Your task to perform on an android device: change the clock style Image 0: 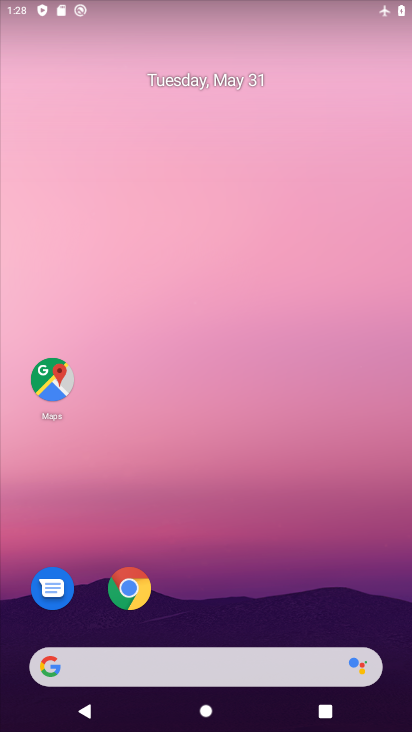
Step 0: drag from (332, 623) to (393, 216)
Your task to perform on an android device: change the clock style Image 1: 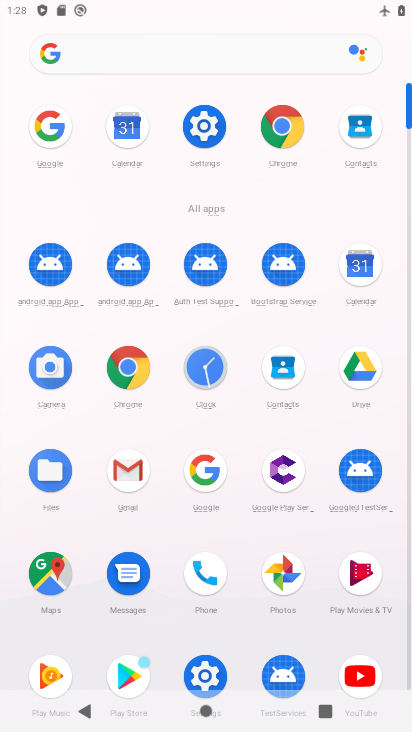
Step 1: click (210, 378)
Your task to perform on an android device: change the clock style Image 2: 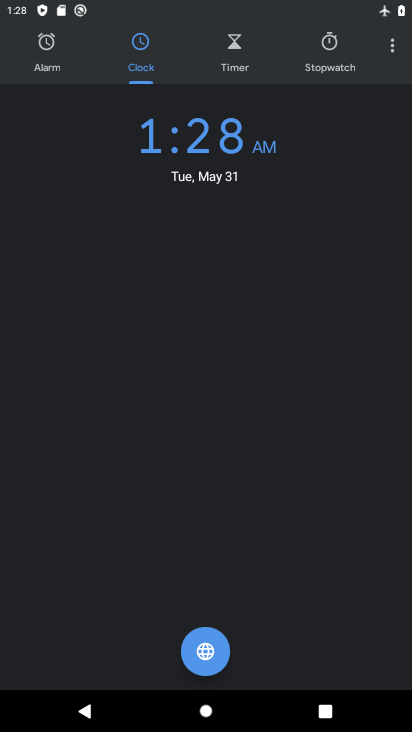
Step 2: click (395, 50)
Your task to perform on an android device: change the clock style Image 3: 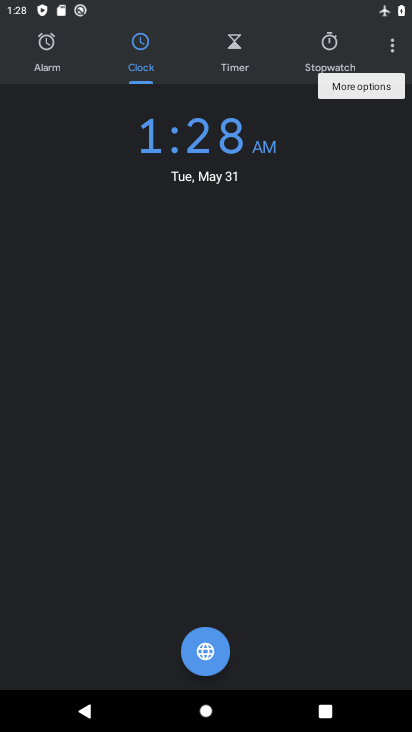
Step 3: click (395, 50)
Your task to perform on an android device: change the clock style Image 4: 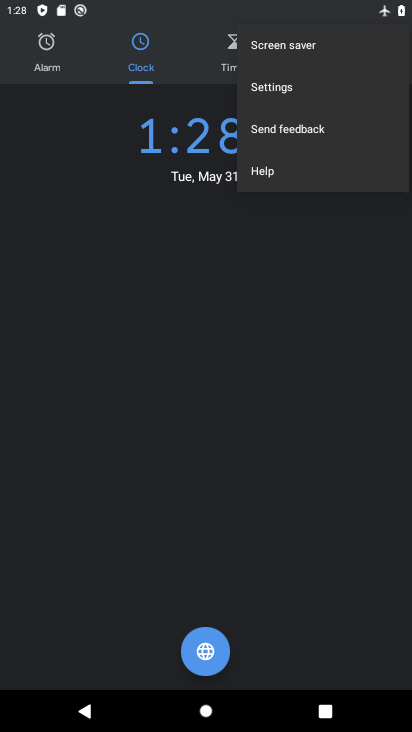
Step 4: click (307, 96)
Your task to perform on an android device: change the clock style Image 5: 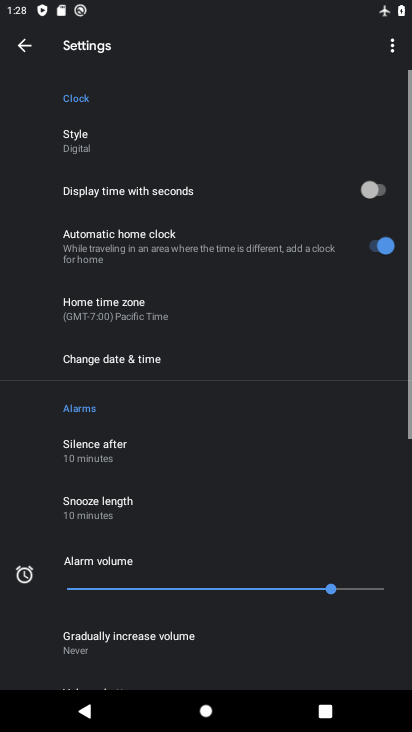
Step 5: drag from (328, 405) to (329, 302)
Your task to perform on an android device: change the clock style Image 6: 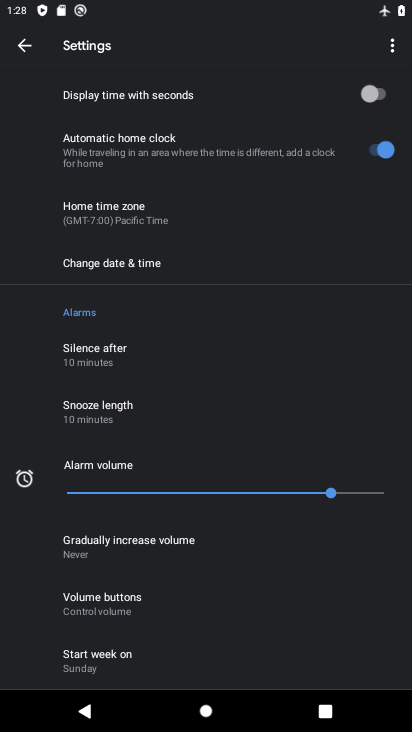
Step 6: drag from (323, 412) to (335, 297)
Your task to perform on an android device: change the clock style Image 7: 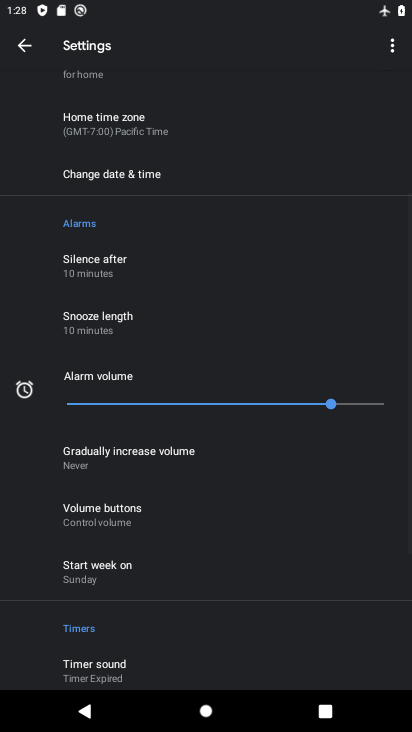
Step 7: drag from (318, 473) to (335, 325)
Your task to perform on an android device: change the clock style Image 8: 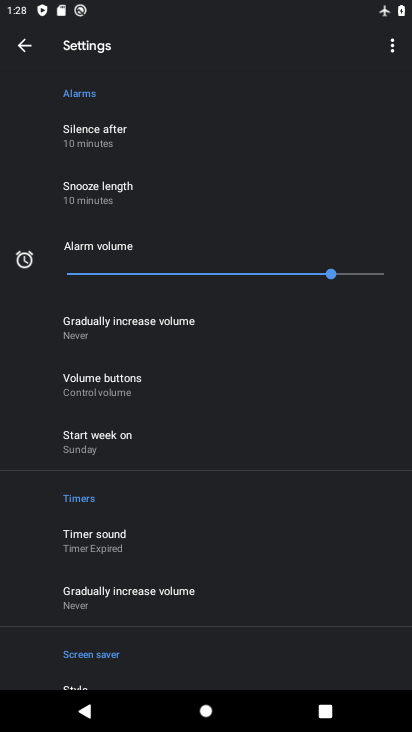
Step 8: drag from (327, 489) to (325, 384)
Your task to perform on an android device: change the clock style Image 9: 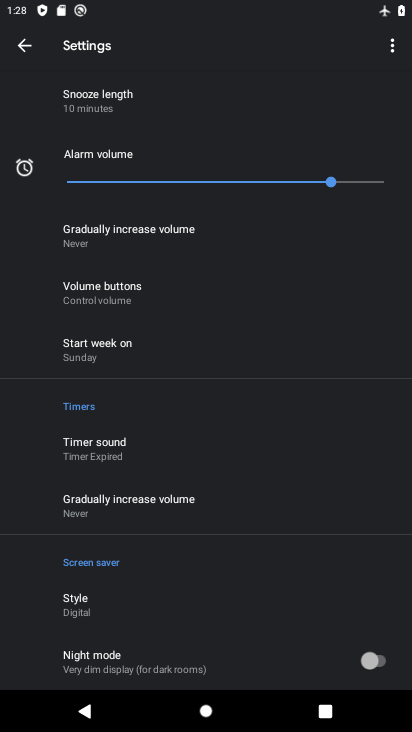
Step 9: drag from (320, 510) to (324, 370)
Your task to perform on an android device: change the clock style Image 10: 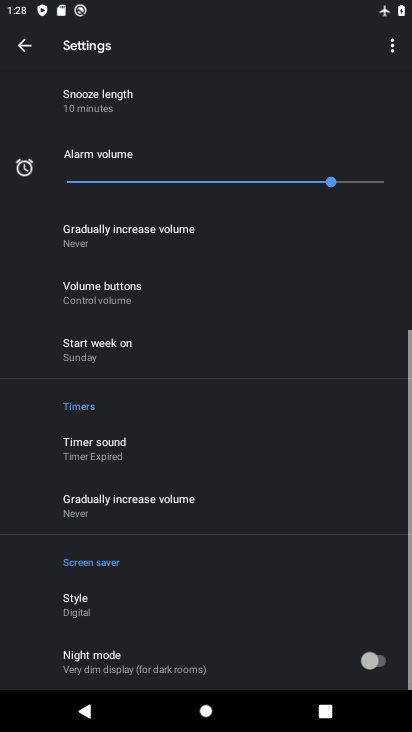
Step 10: drag from (318, 246) to (313, 345)
Your task to perform on an android device: change the clock style Image 11: 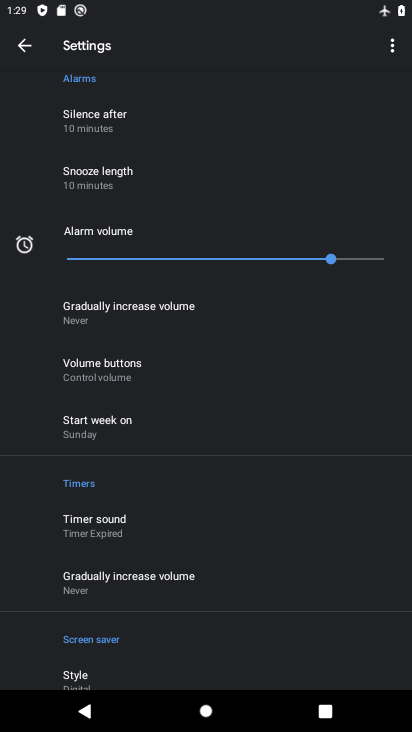
Step 11: drag from (317, 206) to (312, 329)
Your task to perform on an android device: change the clock style Image 12: 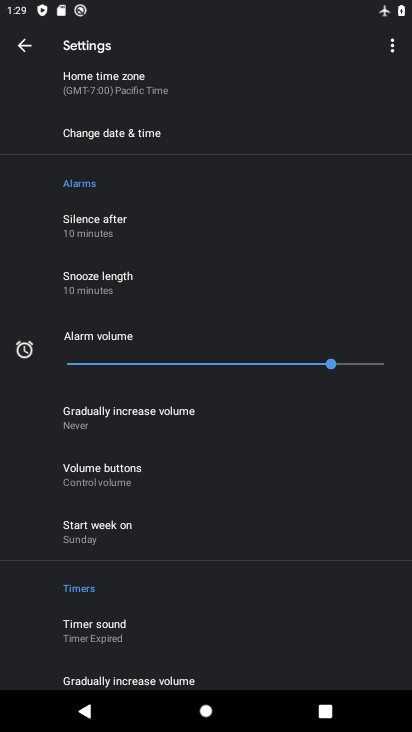
Step 12: drag from (285, 146) to (283, 270)
Your task to perform on an android device: change the clock style Image 13: 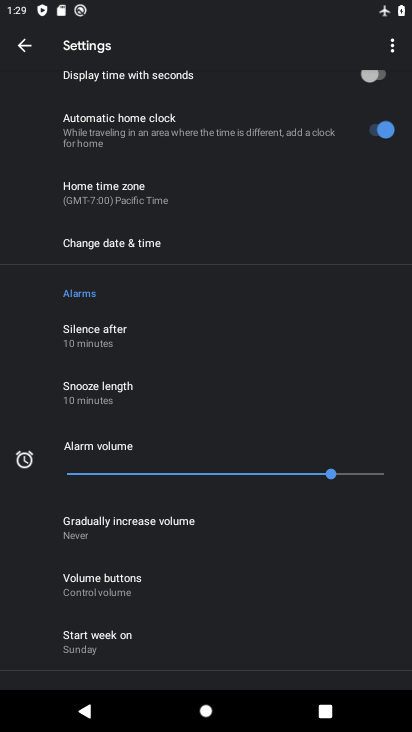
Step 13: drag from (261, 107) to (276, 270)
Your task to perform on an android device: change the clock style Image 14: 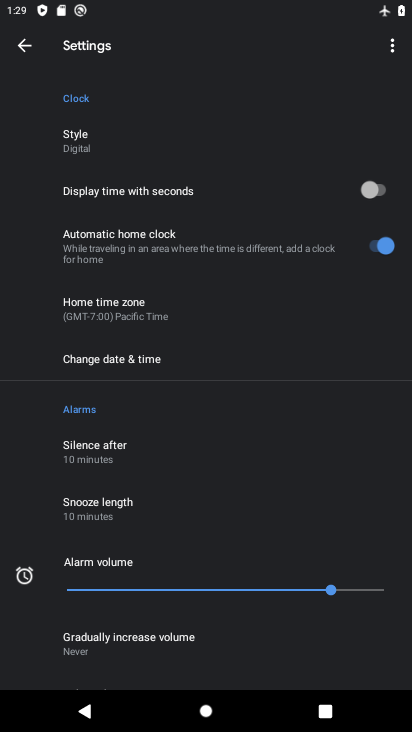
Step 14: click (106, 155)
Your task to perform on an android device: change the clock style Image 15: 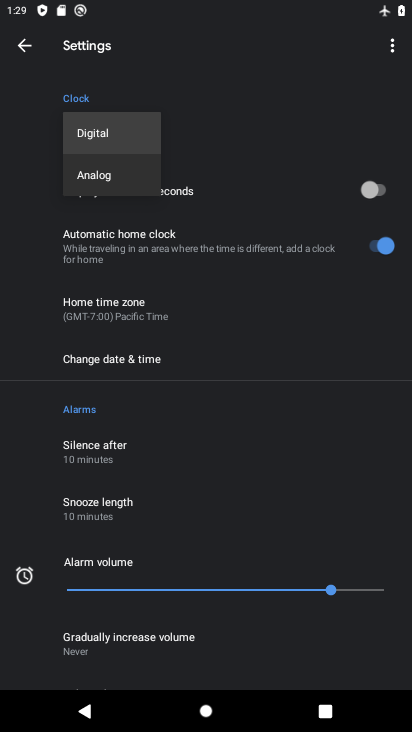
Step 15: click (117, 182)
Your task to perform on an android device: change the clock style Image 16: 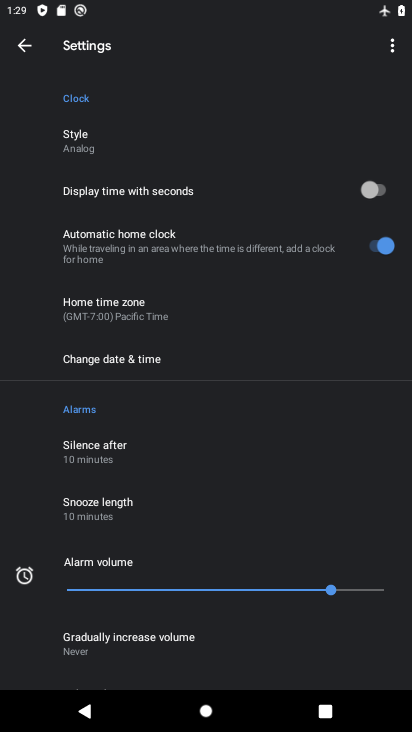
Step 16: task complete